Your task to perform on an android device: choose inbox layout in the gmail app Image 0: 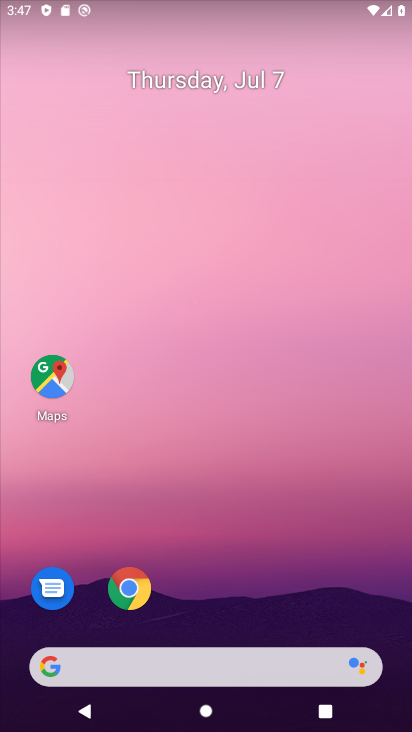
Step 0: drag from (254, 718) to (157, 225)
Your task to perform on an android device: choose inbox layout in the gmail app Image 1: 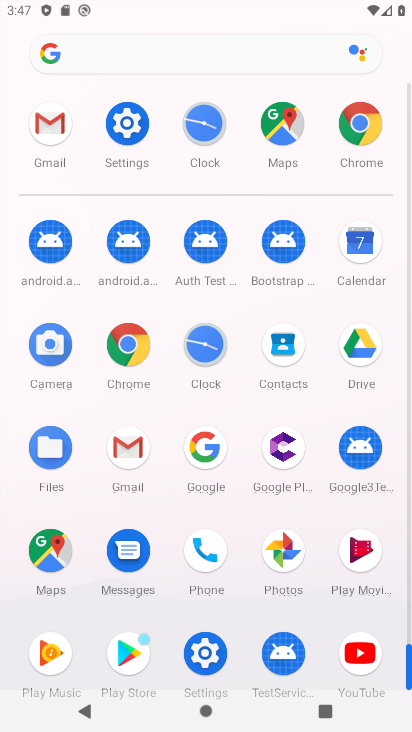
Step 1: click (128, 456)
Your task to perform on an android device: choose inbox layout in the gmail app Image 2: 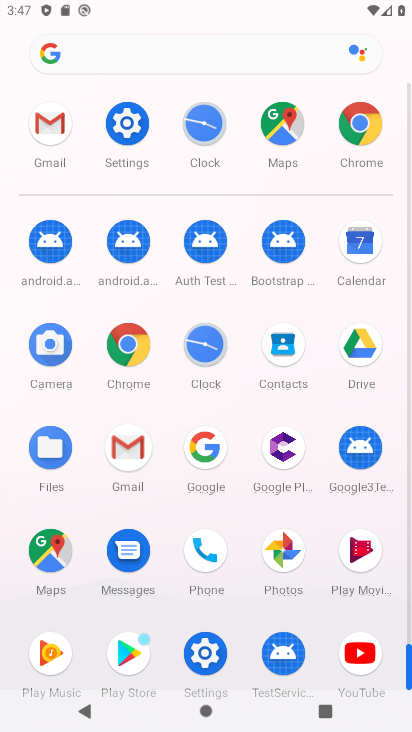
Step 2: click (126, 451)
Your task to perform on an android device: choose inbox layout in the gmail app Image 3: 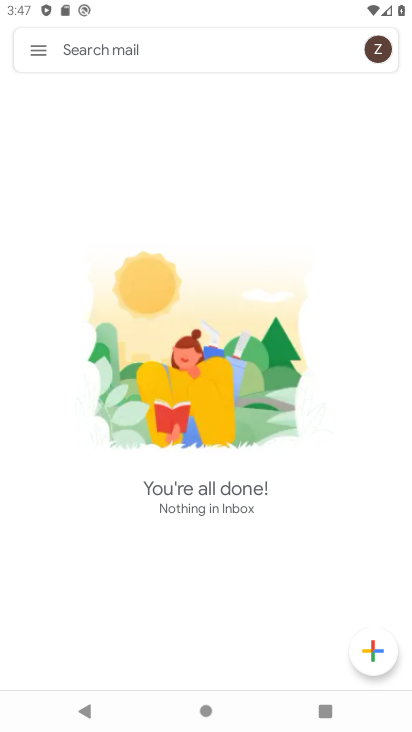
Step 3: click (45, 59)
Your task to perform on an android device: choose inbox layout in the gmail app Image 4: 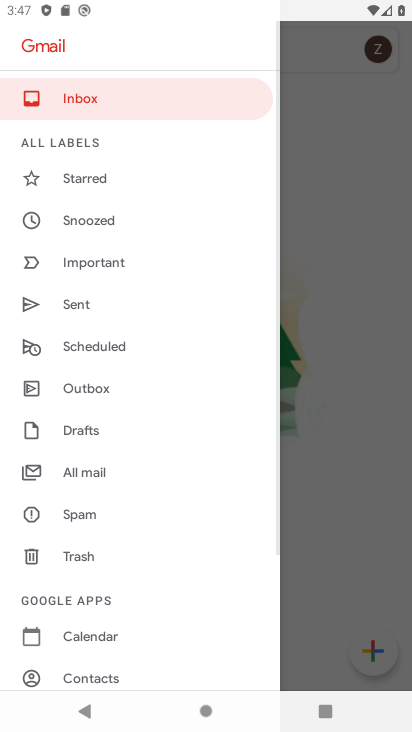
Step 4: click (80, 480)
Your task to perform on an android device: choose inbox layout in the gmail app Image 5: 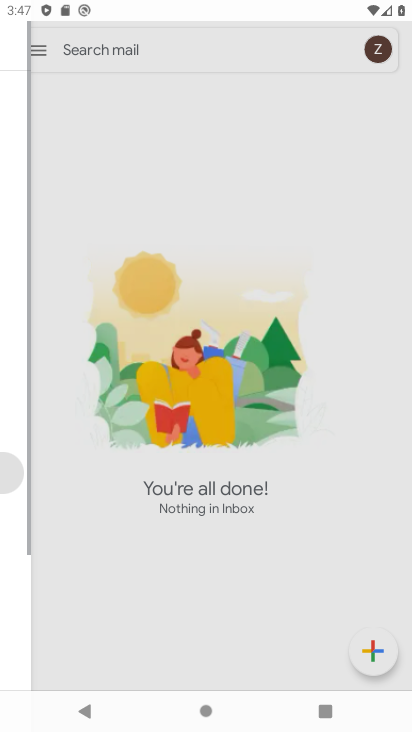
Step 5: click (93, 473)
Your task to perform on an android device: choose inbox layout in the gmail app Image 6: 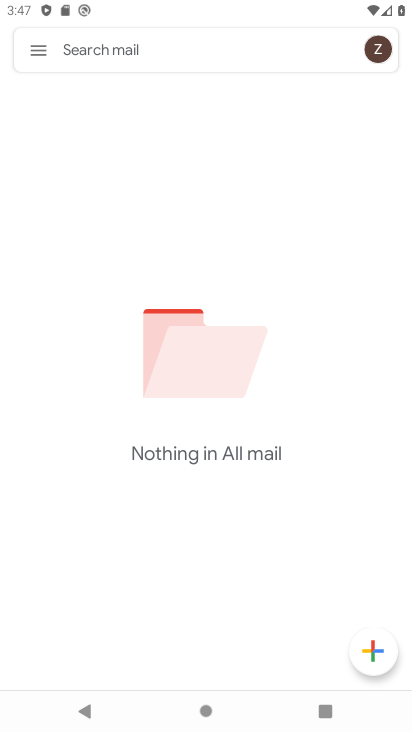
Step 6: task complete